Your task to perform on an android device: Open settings Image 0: 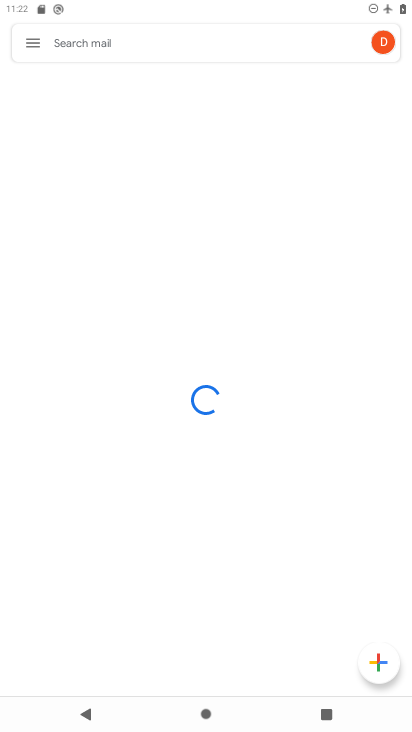
Step 0: press home button
Your task to perform on an android device: Open settings Image 1: 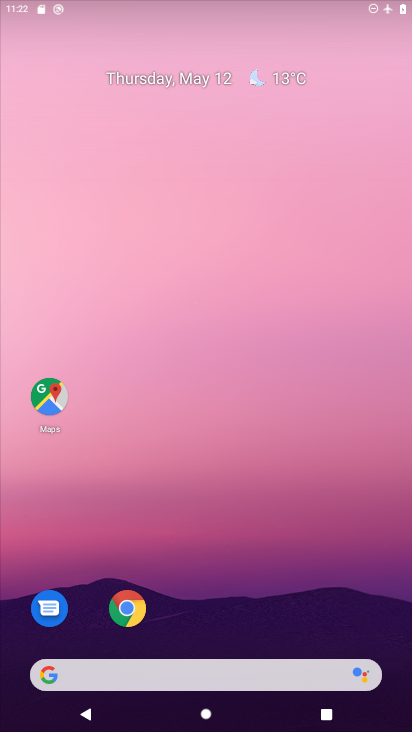
Step 1: drag from (242, 617) to (252, 75)
Your task to perform on an android device: Open settings Image 2: 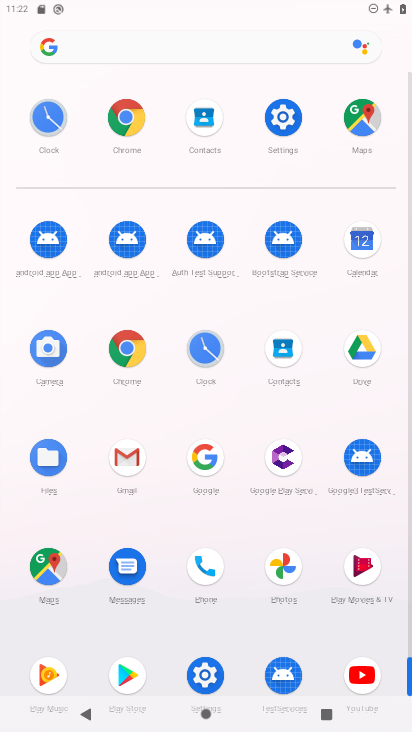
Step 2: click (287, 108)
Your task to perform on an android device: Open settings Image 3: 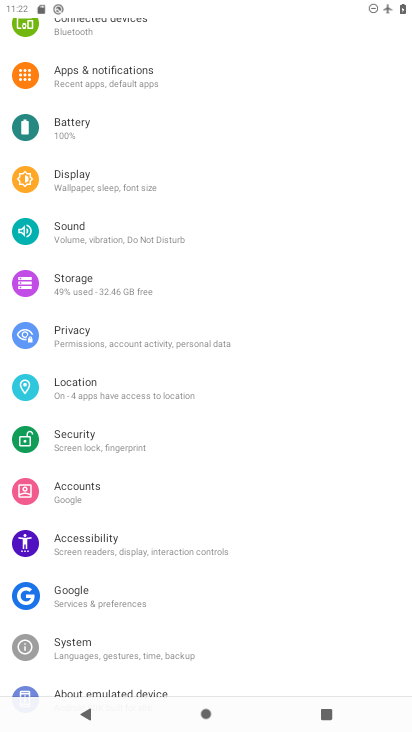
Step 3: task complete